Your task to perform on an android device: Do I have any events tomorrow? Image 0: 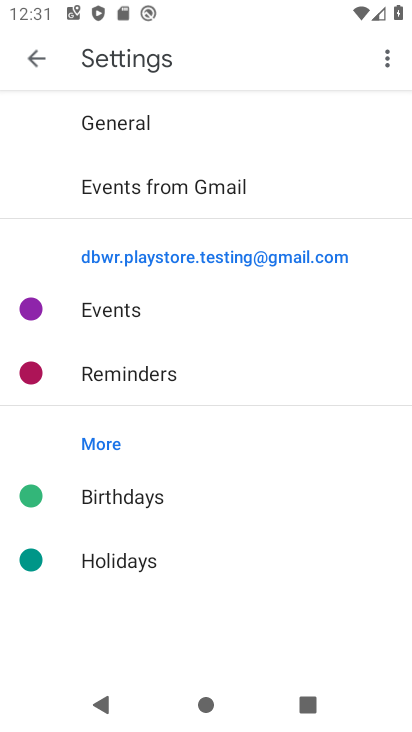
Step 0: press home button
Your task to perform on an android device: Do I have any events tomorrow? Image 1: 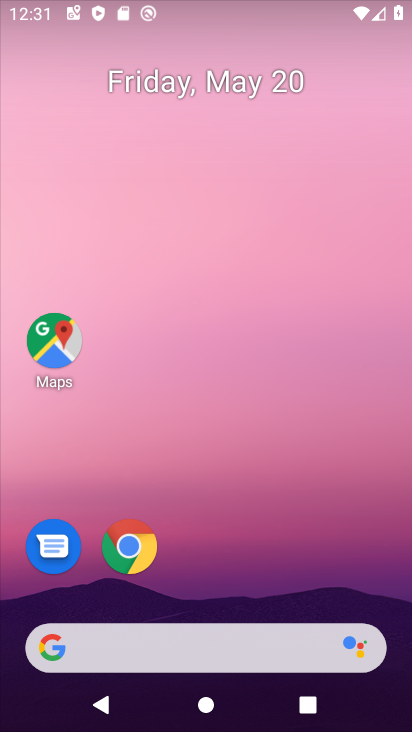
Step 1: drag from (256, 521) to (231, 71)
Your task to perform on an android device: Do I have any events tomorrow? Image 2: 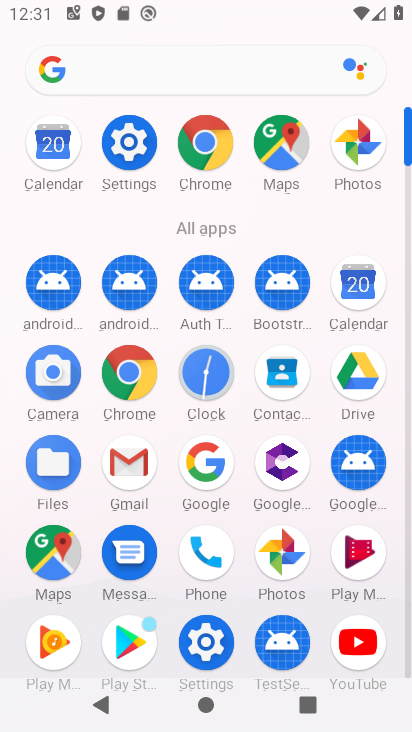
Step 2: click (56, 136)
Your task to perform on an android device: Do I have any events tomorrow? Image 3: 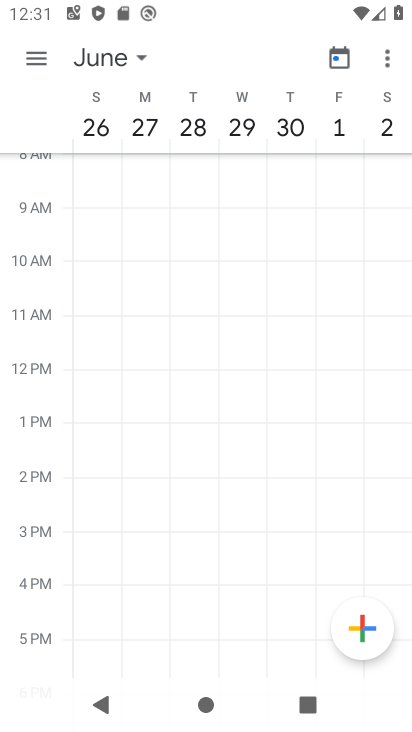
Step 3: drag from (85, 194) to (386, 248)
Your task to perform on an android device: Do I have any events tomorrow? Image 4: 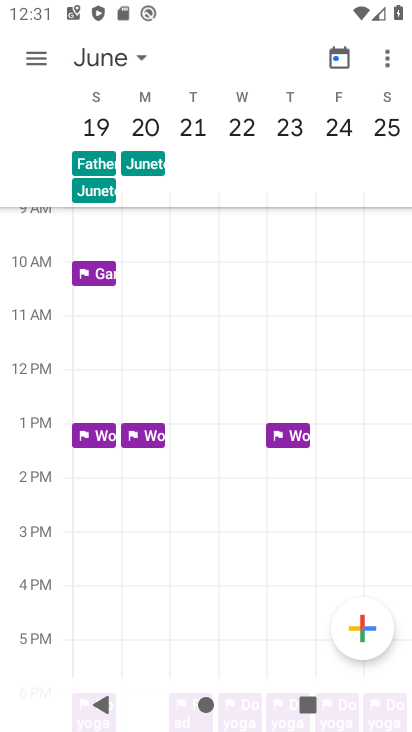
Step 4: drag from (110, 334) to (388, 314)
Your task to perform on an android device: Do I have any events tomorrow? Image 5: 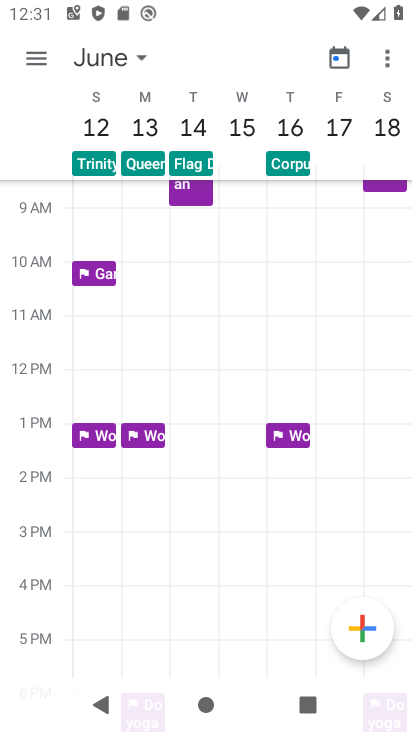
Step 5: drag from (88, 357) to (403, 384)
Your task to perform on an android device: Do I have any events tomorrow? Image 6: 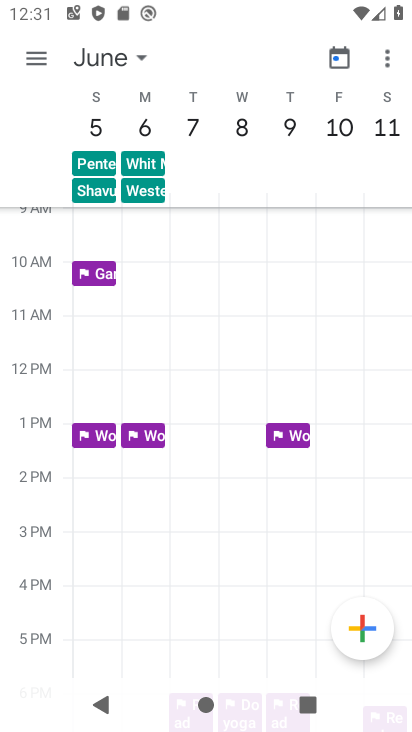
Step 6: drag from (110, 379) to (411, 361)
Your task to perform on an android device: Do I have any events tomorrow? Image 7: 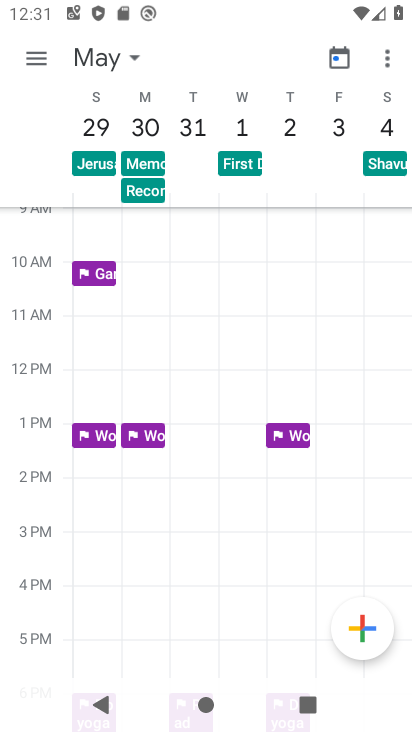
Step 7: drag from (106, 369) to (407, 348)
Your task to perform on an android device: Do I have any events tomorrow? Image 8: 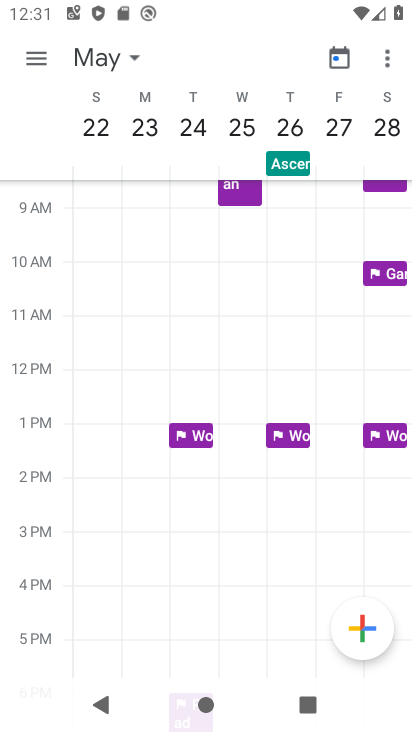
Step 8: drag from (95, 368) to (400, 351)
Your task to perform on an android device: Do I have any events tomorrow? Image 9: 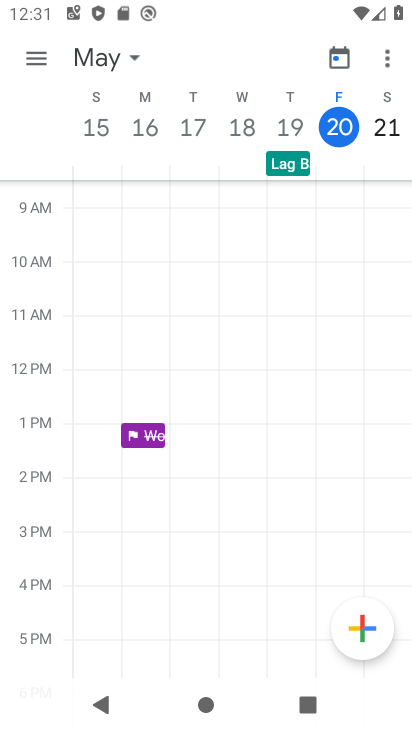
Step 9: click (294, 123)
Your task to perform on an android device: Do I have any events tomorrow? Image 10: 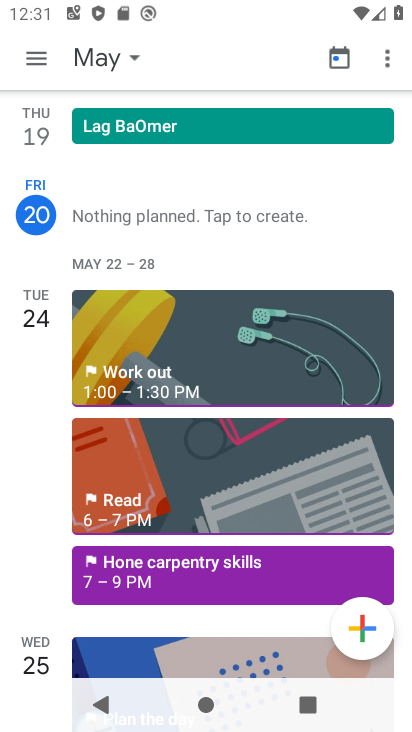
Step 10: click (257, 214)
Your task to perform on an android device: Do I have any events tomorrow? Image 11: 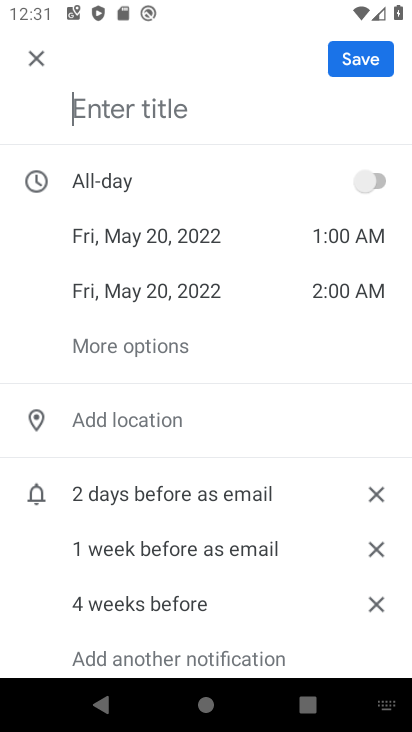
Step 11: click (34, 51)
Your task to perform on an android device: Do I have any events tomorrow? Image 12: 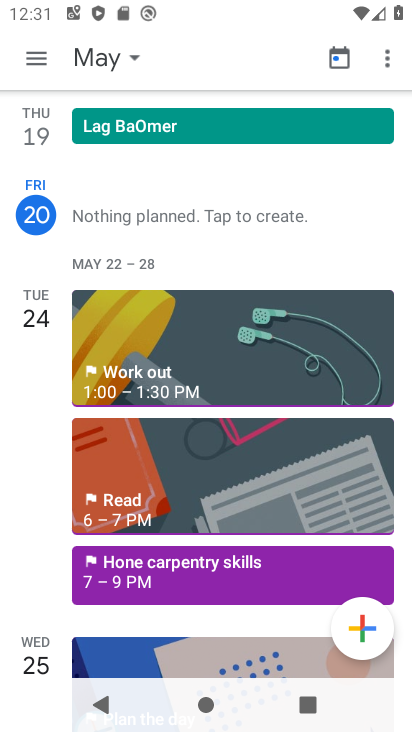
Step 12: task complete